Your task to perform on an android device: change the clock display to show seconds Image 0: 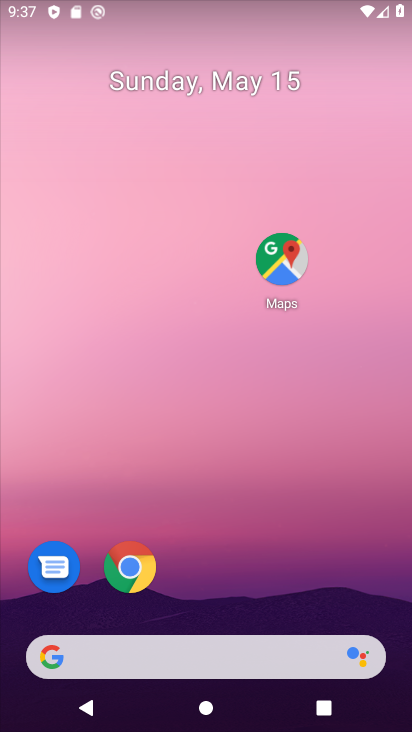
Step 0: drag from (258, 578) to (241, 149)
Your task to perform on an android device: change the clock display to show seconds Image 1: 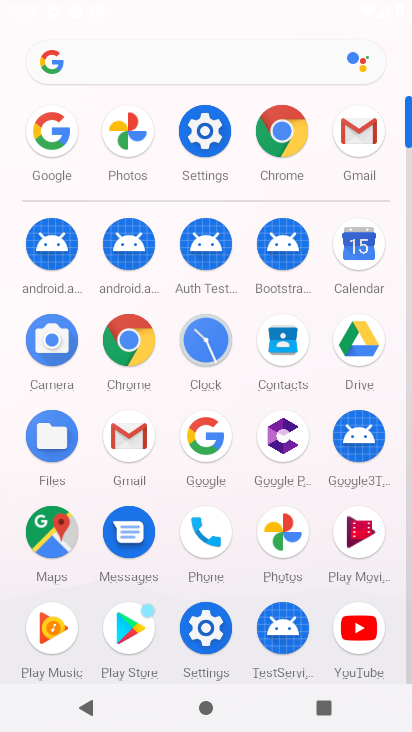
Step 1: click (211, 343)
Your task to perform on an android device: change the clock display to show seconds Image 2: 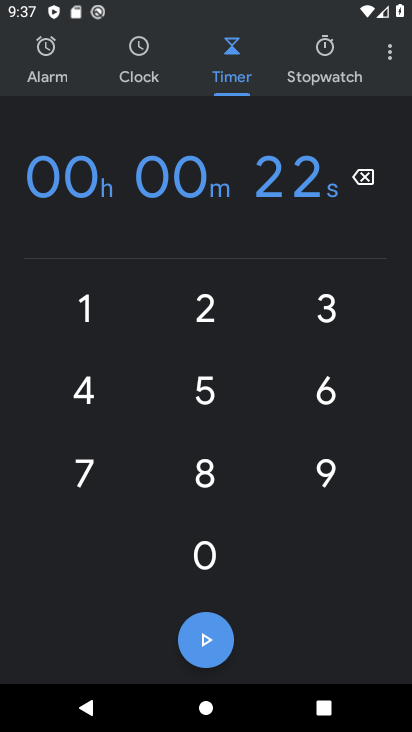
Step 2: click (384, 51)
Your task to perform on an android device: change the clock display to show seconds Image 3: 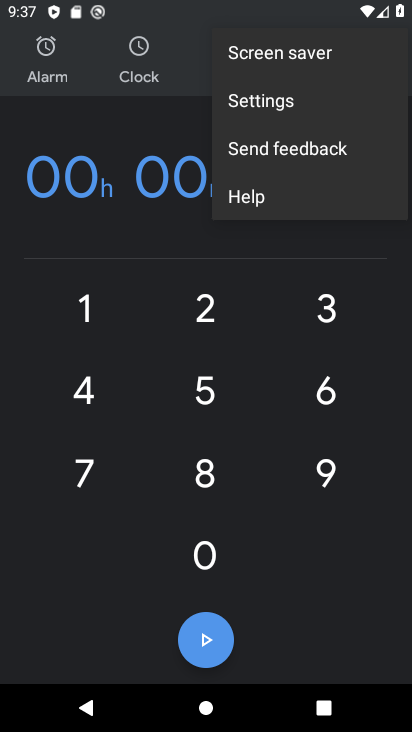
Step 3: click (319, 103)
Your task to perform on an android device: change the clock display to show seconds Image 4: 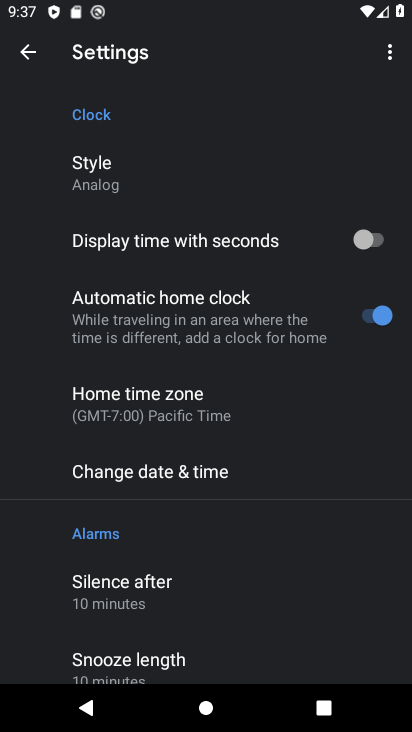
Step 4: click (353, 239)
Your task to perform on an android device: change the clock display to show seconds Image 5: 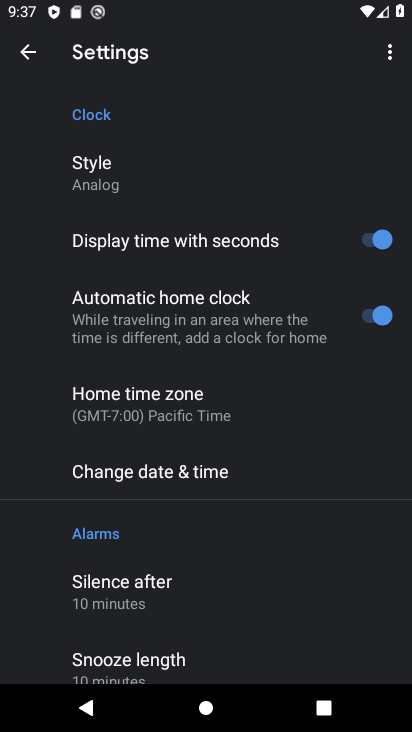
Step 5: task complete